Your task to perform on an android device: Go to network settings Image 0: 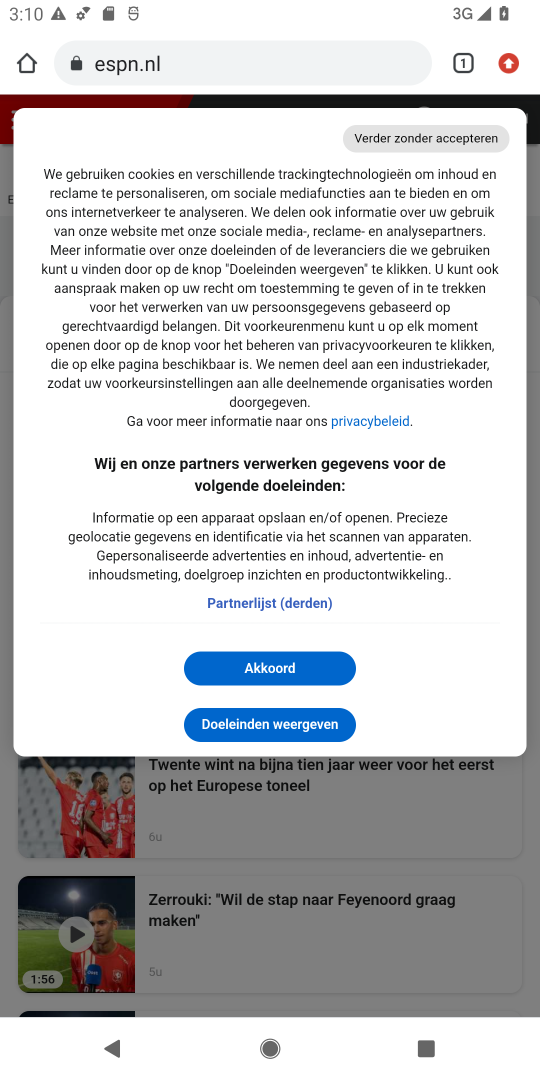
Step 0: press home button
Your task to perform on an android device: Go to network settings Image 1: 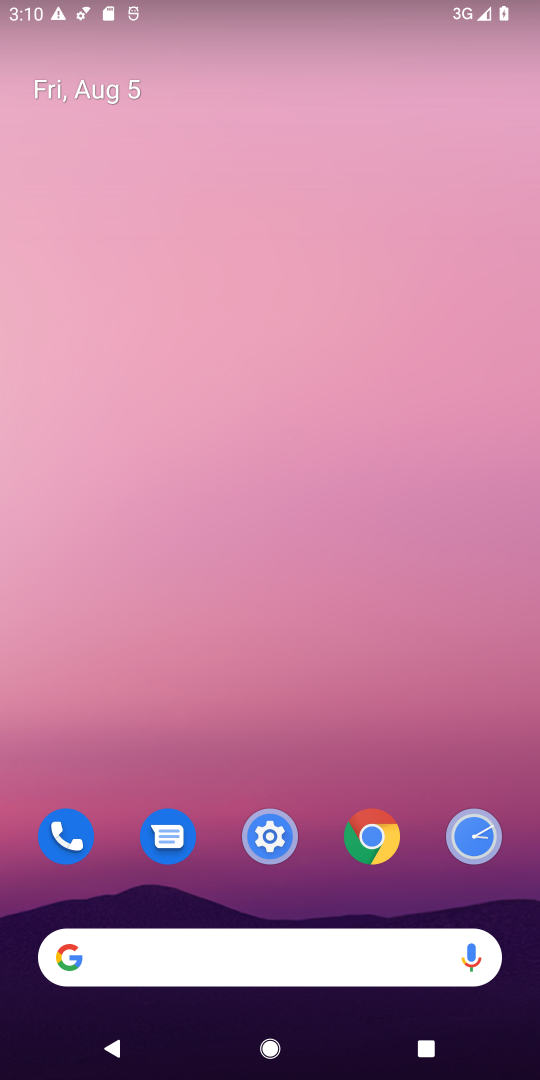
Step 1: drag from (301, 799) to (421, 178)
Your task to perform on an android device: Go to network settings Image 2: 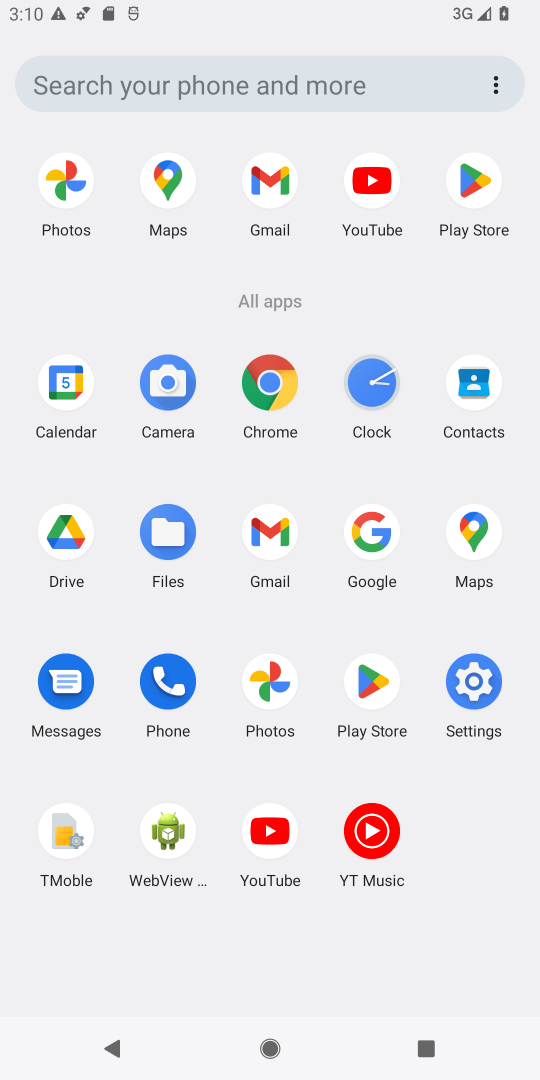
Step 2: click (483, 670)
Your task to perform on an android device: Go to network settings Image 3: 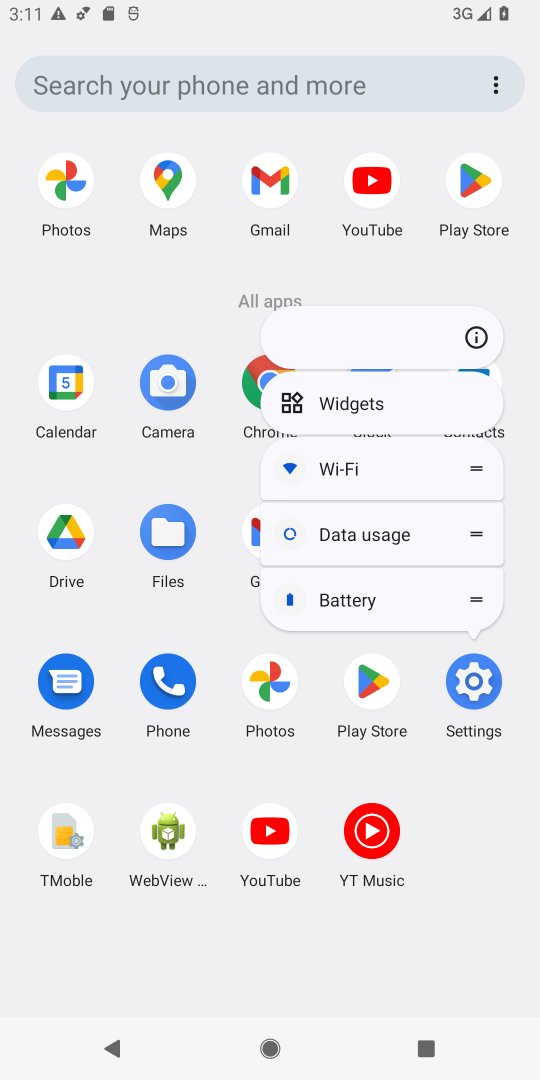
Step 3: click (475, 696)
Your task to perform on an android device: Go to network settings Image 4: 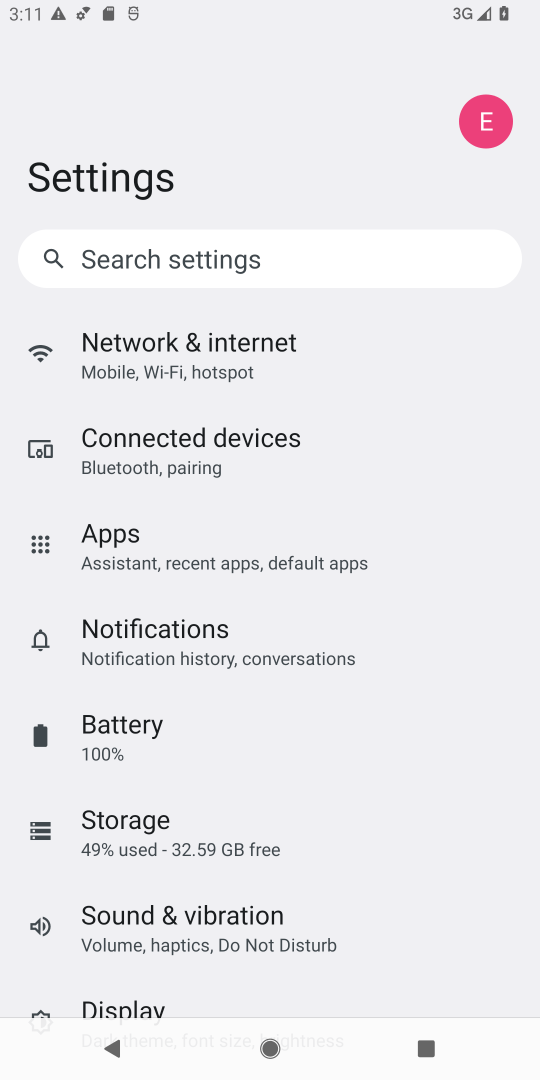
Step 4: click (207, 359)
Your task to perform on an android device: Go to network settings Image 5: 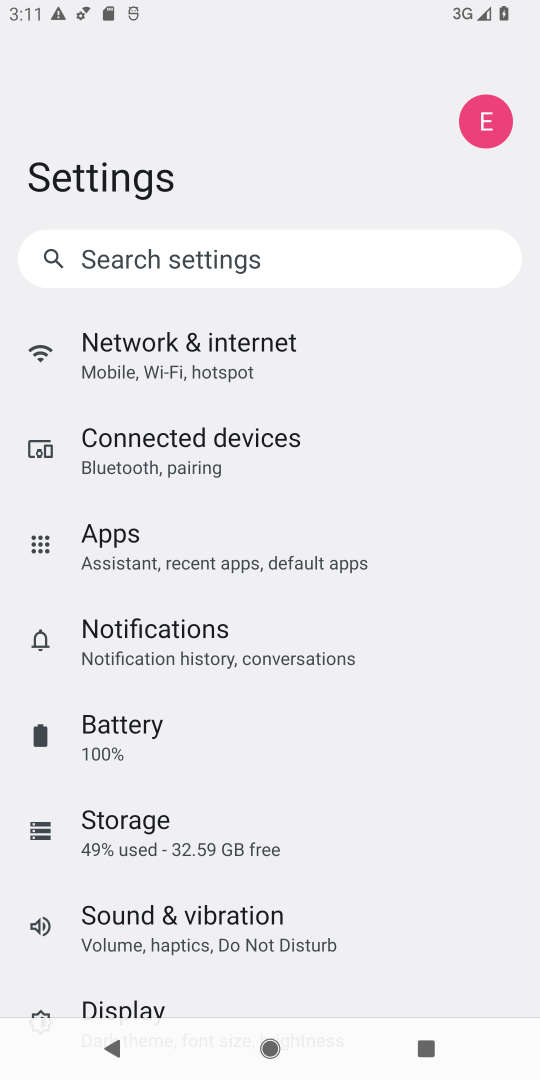
Step 5: click (158, 387)
Your task to perform on an android device: Go to network settings Image 6: 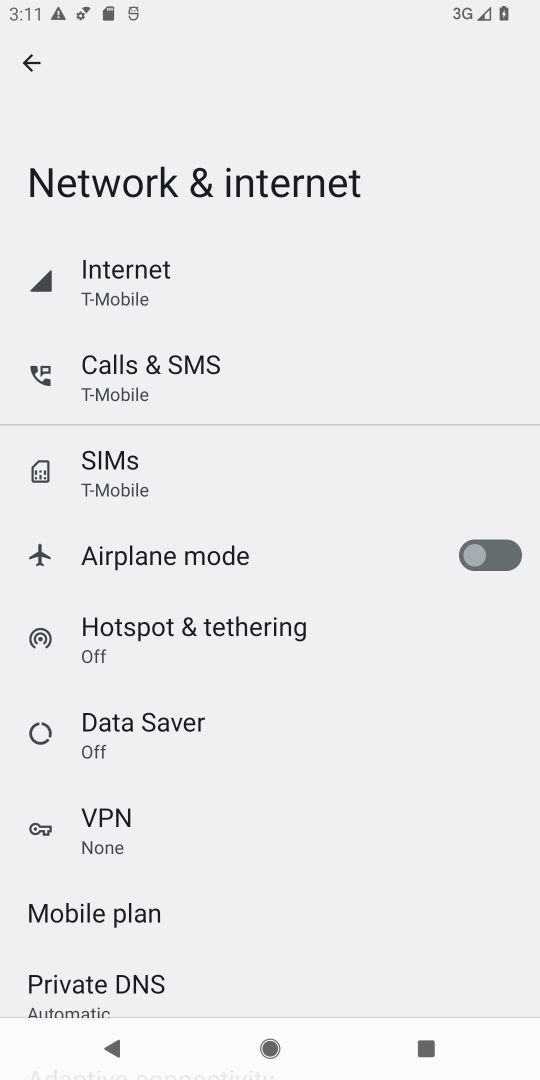
Step 6: task complete